Your task to perform on an android device: Open Chrome and go to the settings page Image 0: 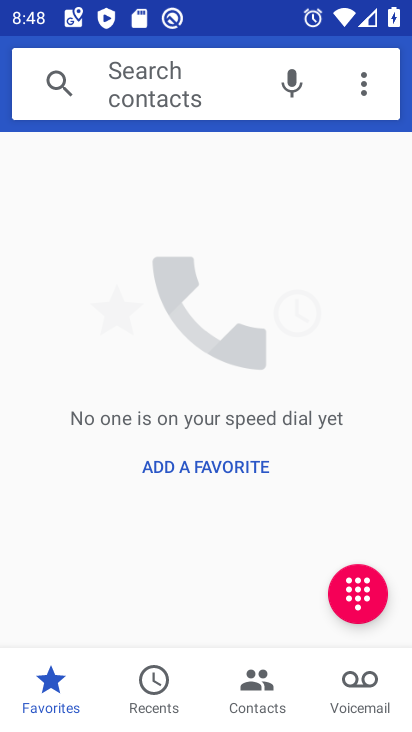
Step 0: press home button
Your task to perform on an android device: Open Chrome and go to the settings page Image 1: 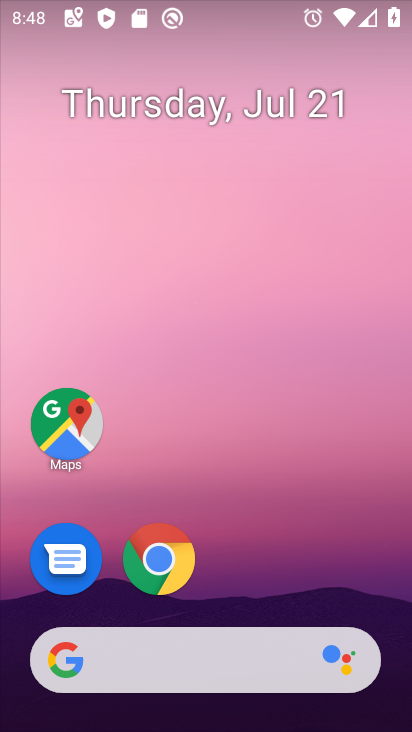
Step 1: drag from (300, 571) to (331, 127)
Your task to perform on an android device: Open Chrome and go to the settings page Image 2: 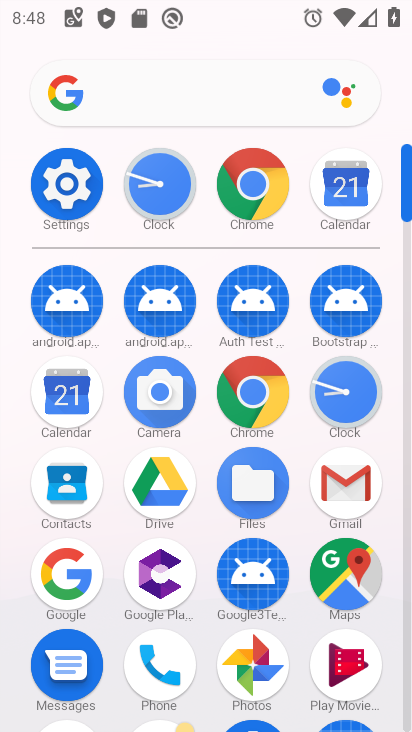
Step 2: click (263, 384)
Your task to perform on an android device: Open Chrome and go to the settings page Image 3: 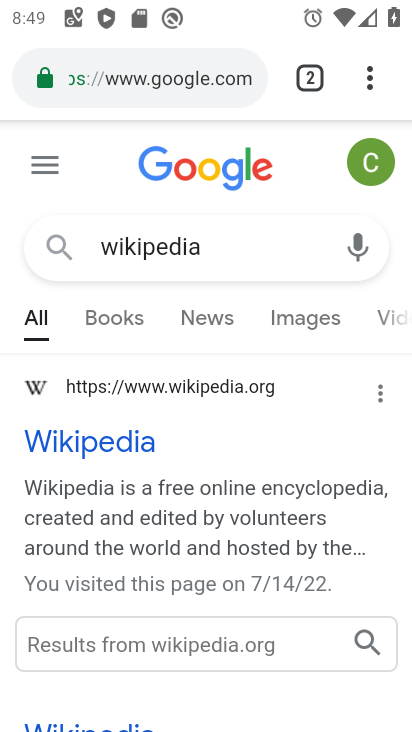
Step 3: click (367, 83)
Your task to perform on an android device: Open Chrome and go to the settings page Image 4: 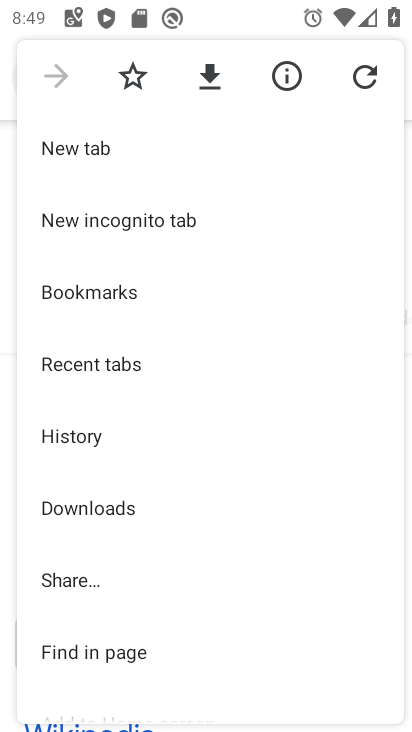
Step 4: drag from (296, 476) to (299, 368)
Your task to perform on an android device: Open Chrome and go to the settings page Image 5: 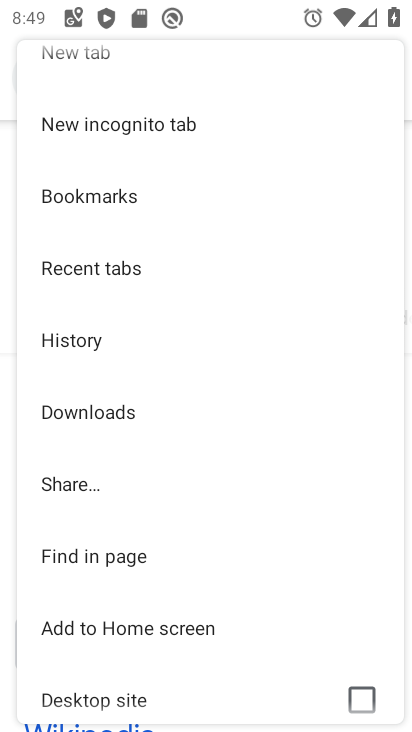
Step 5: drag from (303, 462) to (299, 361)
Your task to perform on an android device: Open Chrome and go to the settings page Image 6: 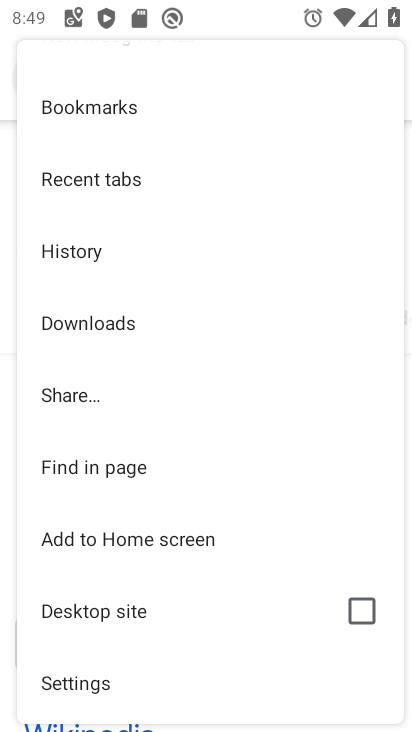
Step 6: drag from (268, 480) to (268, 379)
Your task to perform on an android device: Open Chrome and go to the settings page Image 7: 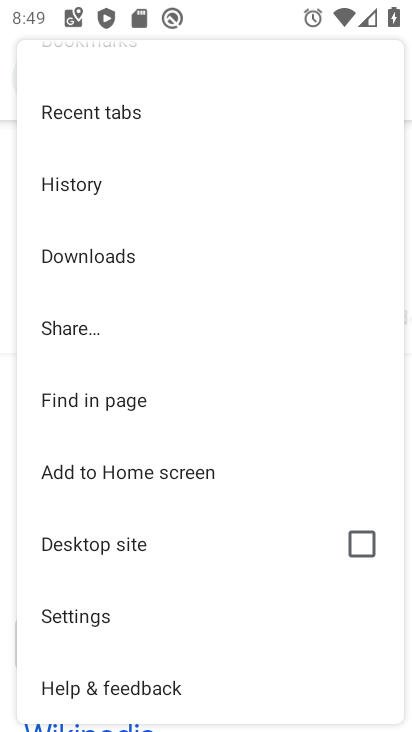
Step 7: click (93, 621)
Your task to perform on an android device: Open Chrome and go to the settings page Image 8: 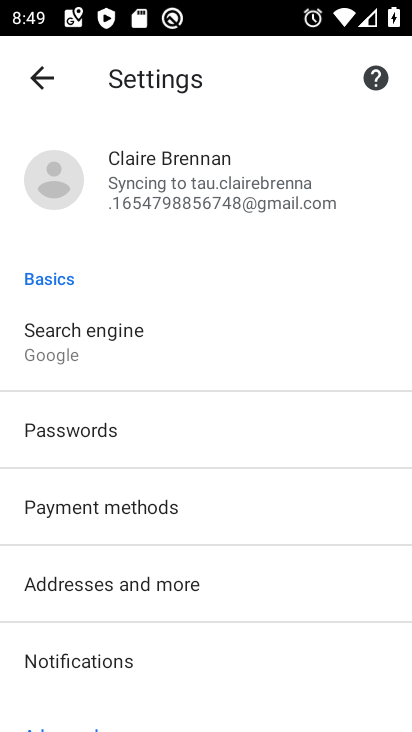
Step 8: task complete